Your task to perform on an android device: Find coffee shops on Maps Image 0: 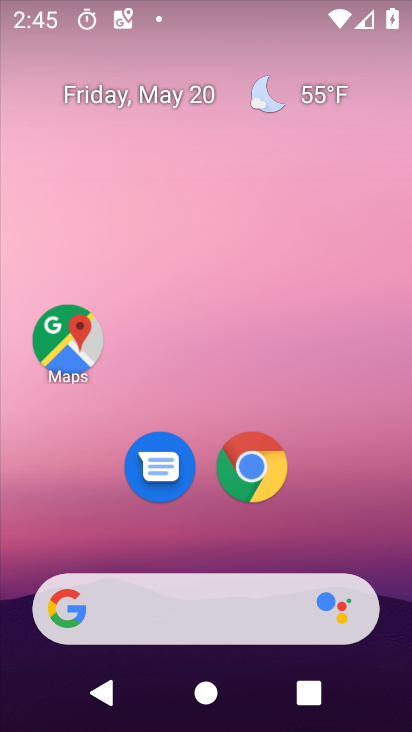
Step 0: click (62, 318)
Your task to perform on an android device: Find coffee shops on Maps Image 1: 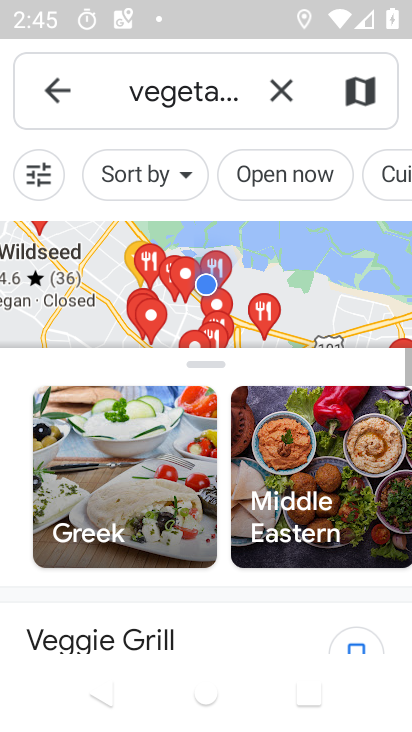
Step 1: click (281, 90)
Your task to perform on an android device: Find coffee shops on Maps Image 2: 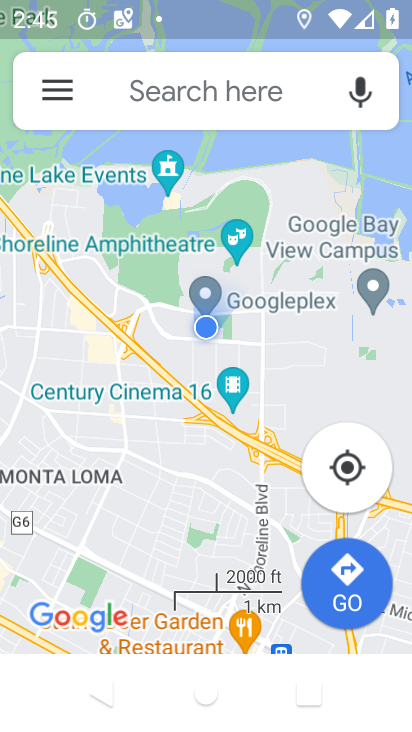
Step 2: click (173, 94)
Your task to perform on an android device: Find coffee shops on Maps Image 3: 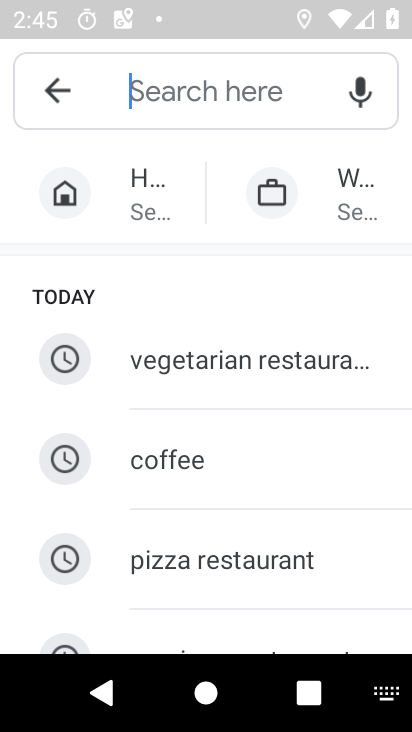
Step 3: type "coffee shops"
Your task to perform on an android device: Find coffee shops on Maps Image 4: 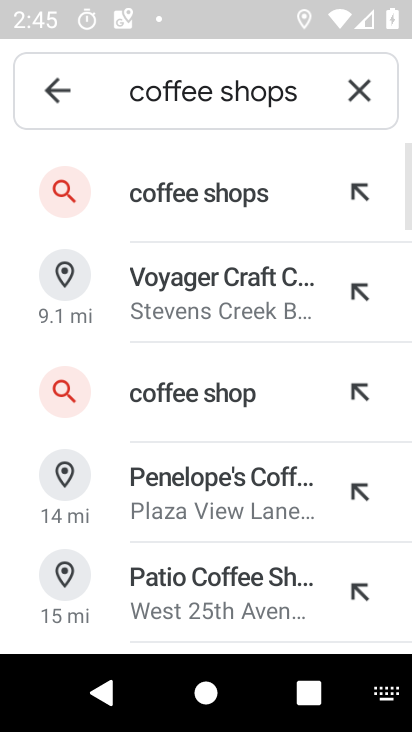
Step 4: click (150, 203)
Your task to perform on an android device: Find coffee shops on Maps Image 5: 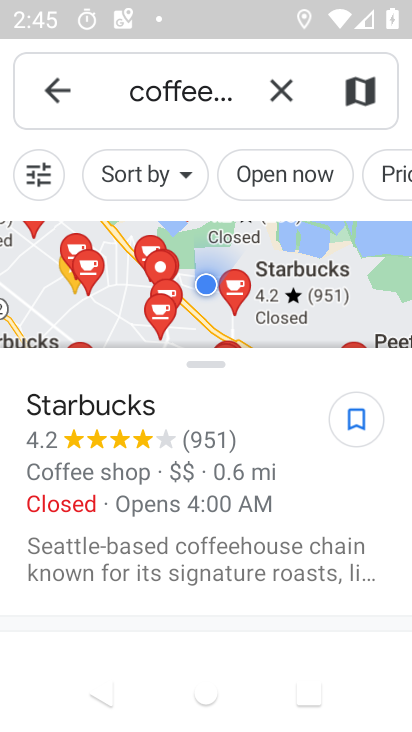
Step 5: task complete